Your task to perform on an android device: turn pop-ups off in chrome Image 0: 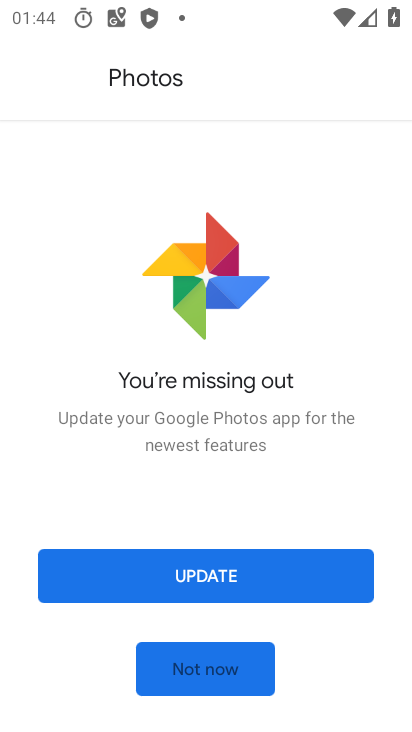
Step 0: press back button
Your task to perform on an android device: turn pop-ups off in chrome Image 1: 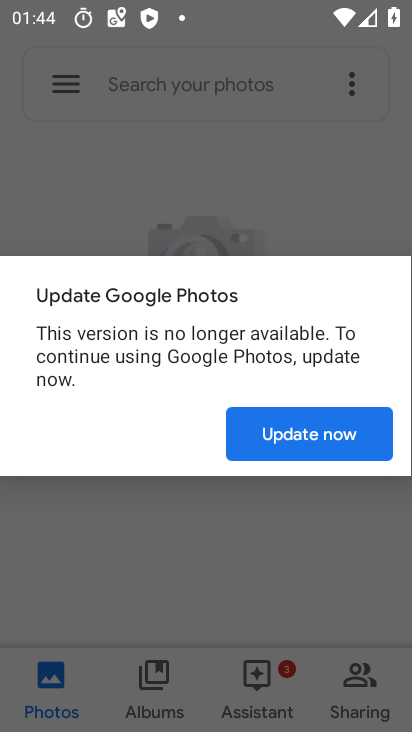
Step 1: press home button
Your task to perform on an android device: turn pop-ups off in chrome Image 2: 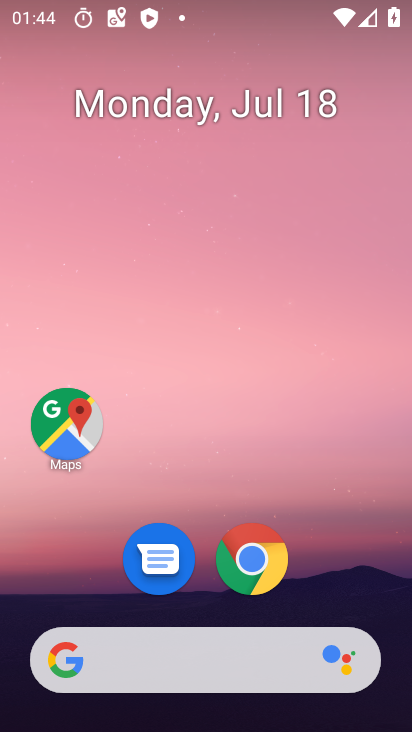
Step 2: click (258, 556)
Your task to perform on an android device: turn pop-ups off in chrome Image 3: 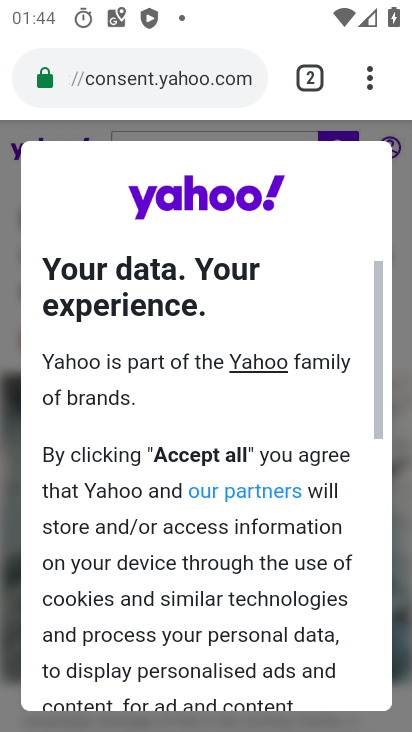
Step 3: drag from (375, 75) to (94, 619)
Your task to perform on an android device: turn pop-ups off in chrome Image 4: 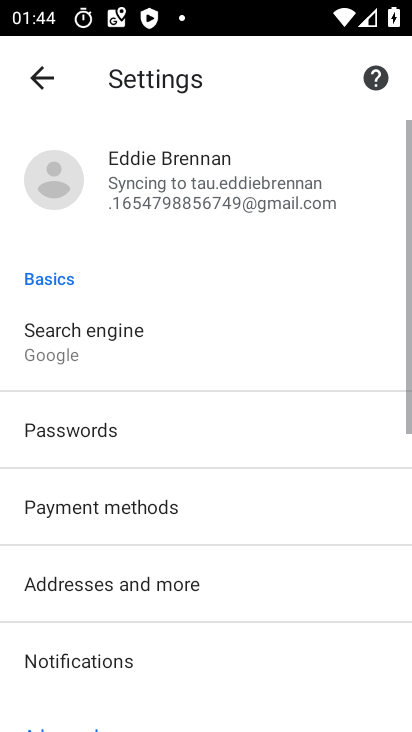
Step 4: drag from (123, 596) to (193, 96)
Your task to perform on an android device: turn pop-ups off in chrome Image 5: 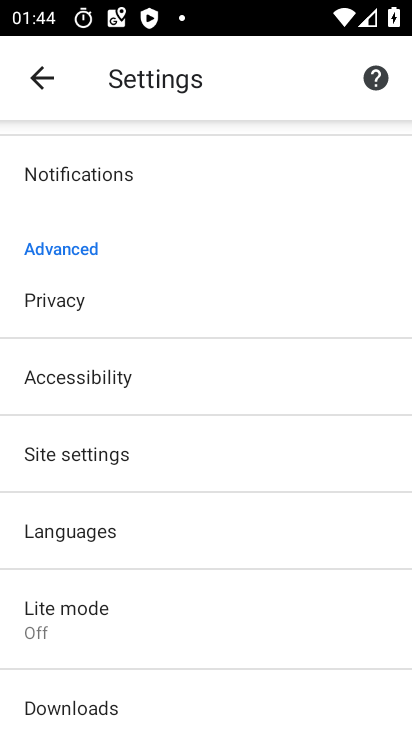
Step 5: click (72, 448)
Your task to perform on an android device: turn pop-ups off in chrome Image 6: 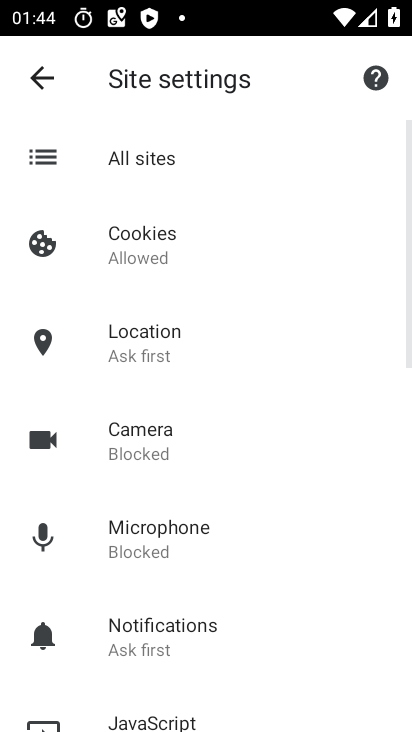
Step 6: drag from (129, 633) to (224, 117)
Your task to perform on an android device: turn pop-ups off in chrome Image 7: 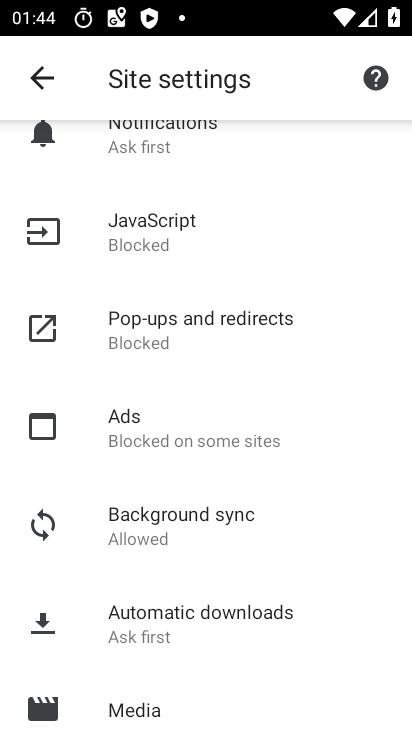
Step 7: click (156, 318)
Your task to perform on an android device: turn pop-ups off in chrome Image 8: 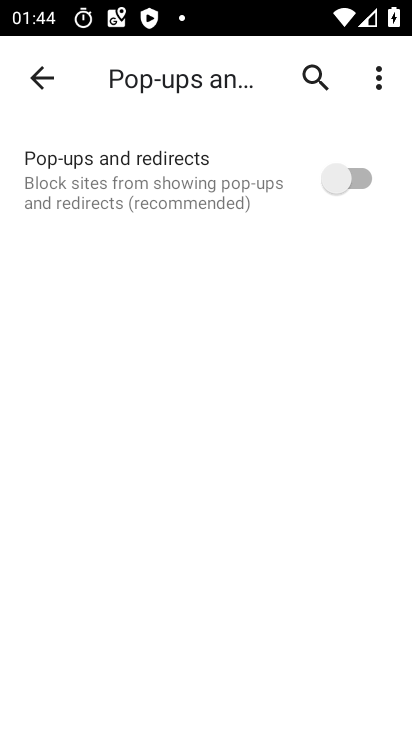
Step 8: task complete